Your task to perform on an android device: check data usage Image 0: 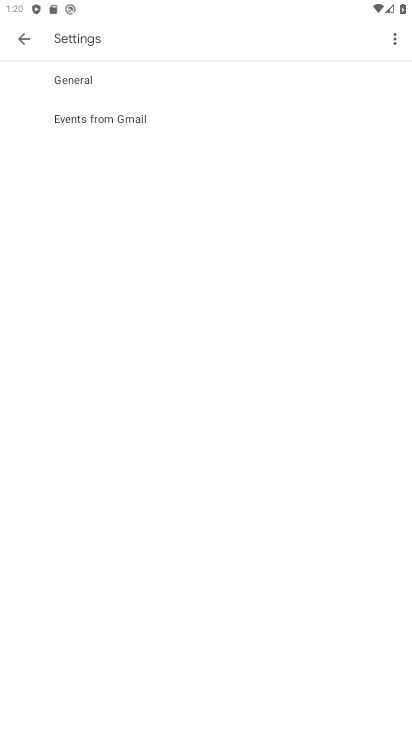
Step 0: press back button
Your task to perform on an android device: check data usage Image 1: 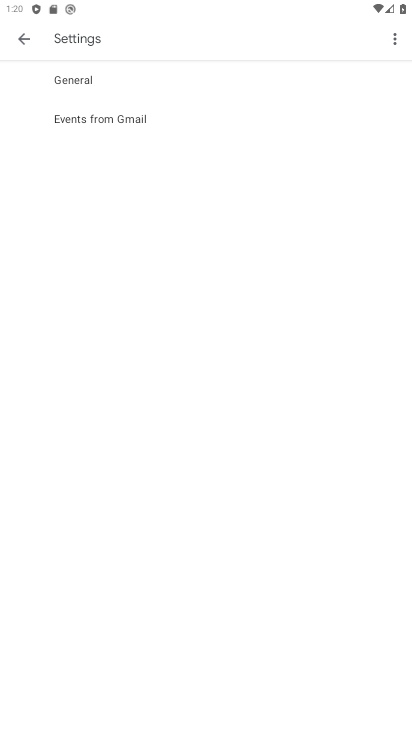
Step 1: press home button
Your task to perform on an android device: check data usage Image 2: 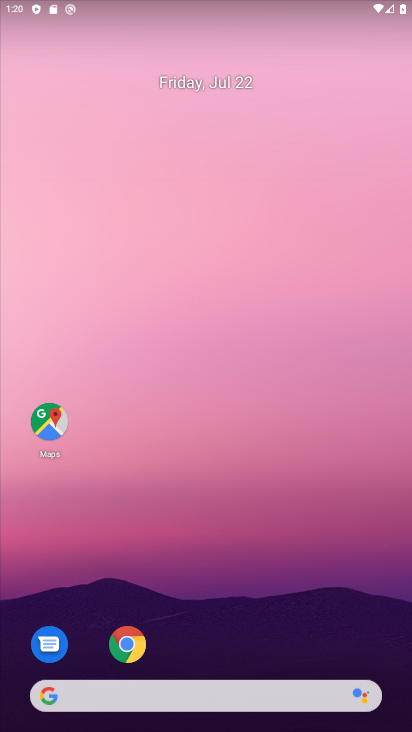
Step 2: drag from (191, 708) to (261, 262)
Your task to perform on an android device: check data usage Image 3: 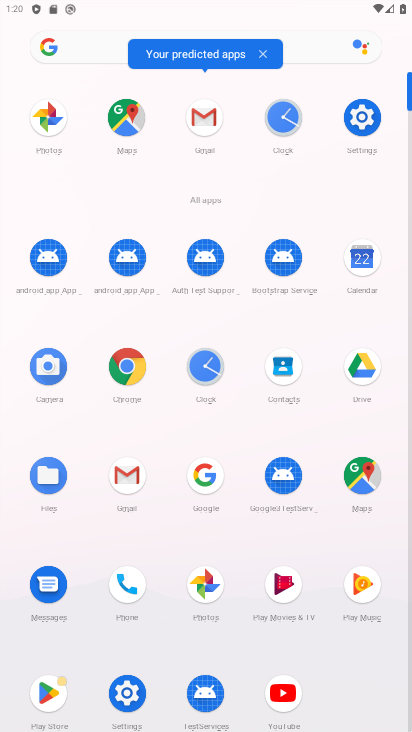
Step 3: click (356, 125)
Your task to perform on an android device: check data usage Image 4: 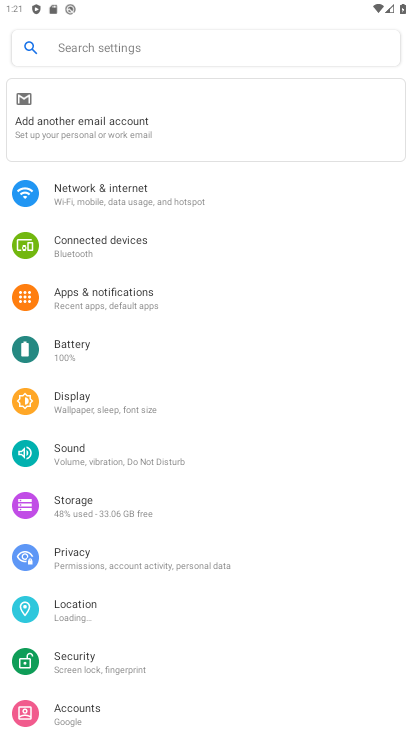
Step 4: click (110, 183)
Your task to perform on an android device: check data usage Image 5: 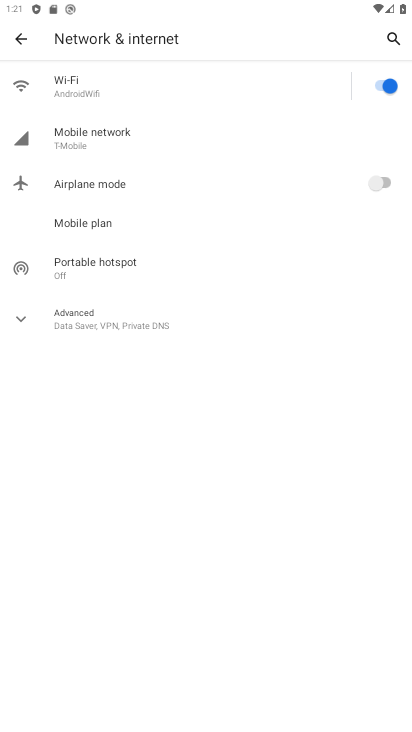
Step 5: click (102, 151)
Your task to perform on an android device: check data usage Image 6: 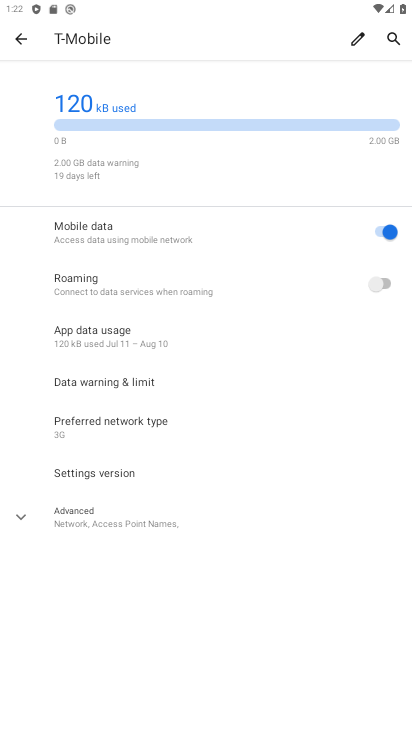
Step 6: task complete